Your task to perform on an android device: delete the emails in spam in the gmail app Image 0: 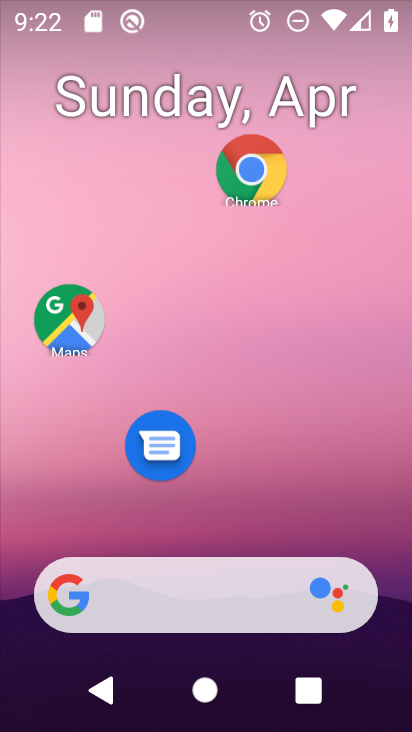
Step 0: drag from (285, 479) to (248, 140)
Your task to perform on an android device: delete the emails in spam in the gmail app Image 1: 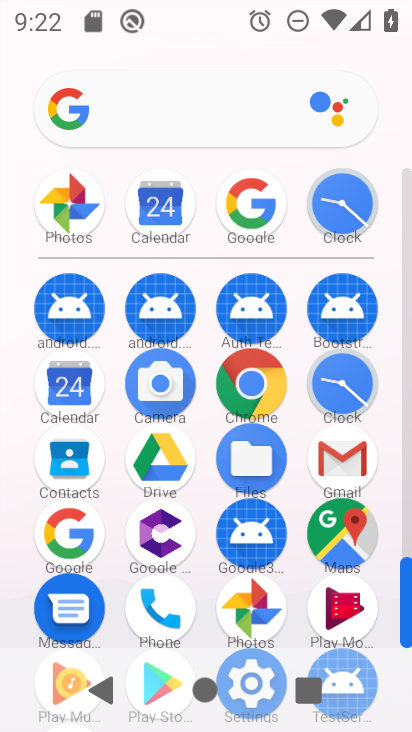
Step 1: click (334, 465)
Your task to perform on an android device: delete the emails in spam in the gmail app Image 2: 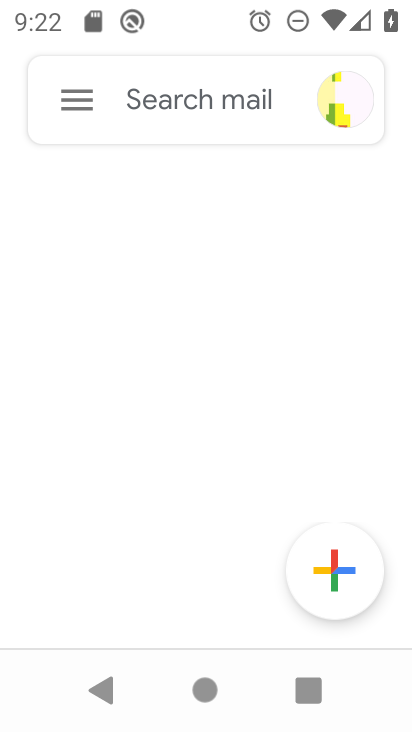
Step 2: click (79, 106)
Your task to perform on an android device: delete the emails in spam in the gmail app Image 3: 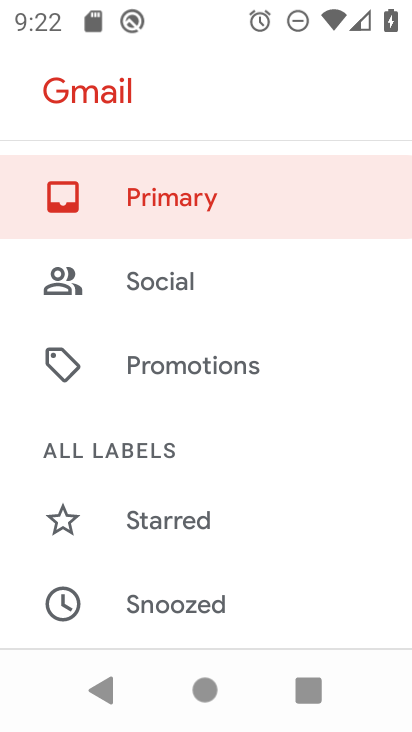
Step 3: drag from (281, 508) to (314, 62)
Your task to perform on an android device: delete the emails in spam in the gmail app Image 4: 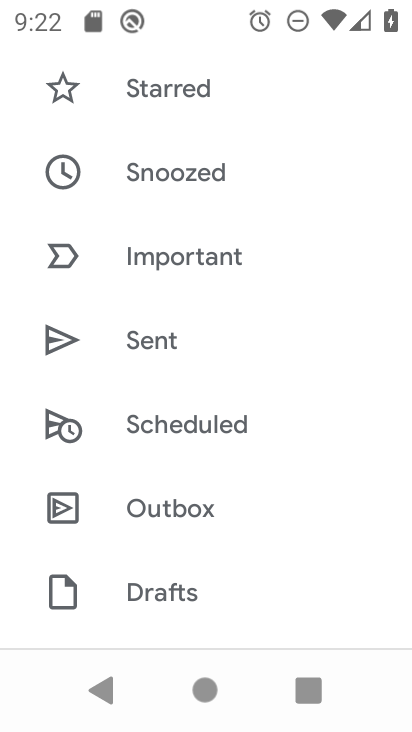
Step 4: drag from (218, 530) to (218, 111)
Your task to perform on an android device: delete the emails in spam in the gmail app Image 5: 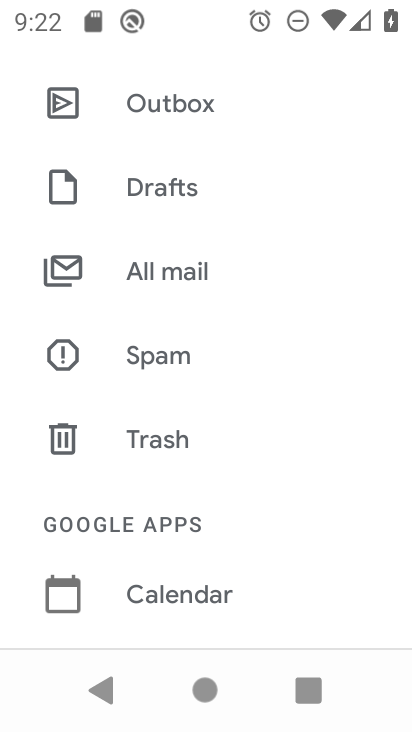
Step 5: click (144, 363)
Your task to perform on an android device: delete the emails in spam in the gmail app Image 6: 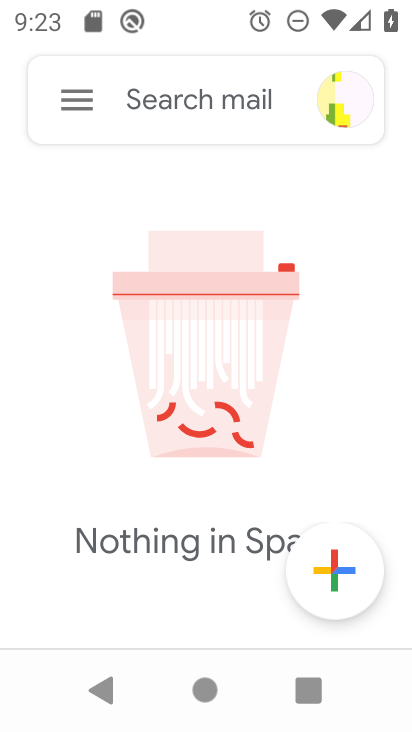
Step 6: task complete